Your task to perform on an android device: move a message to another label in the gmail app Image 0: 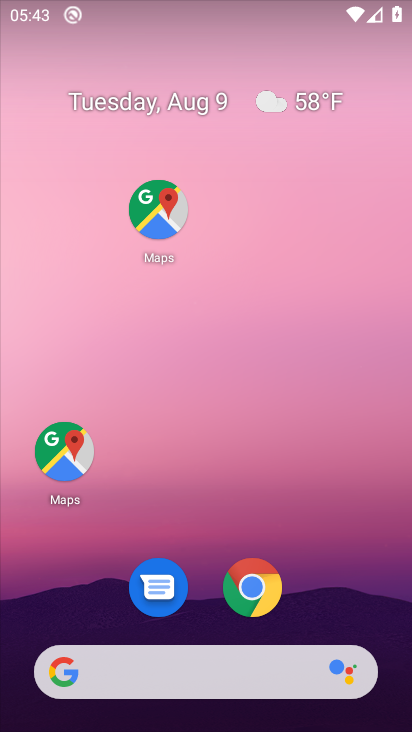
Step 0: drag from (288, 692) to (254, 235)
Your task to perform on an android device: move a message to another label in the gmail app Image 1: 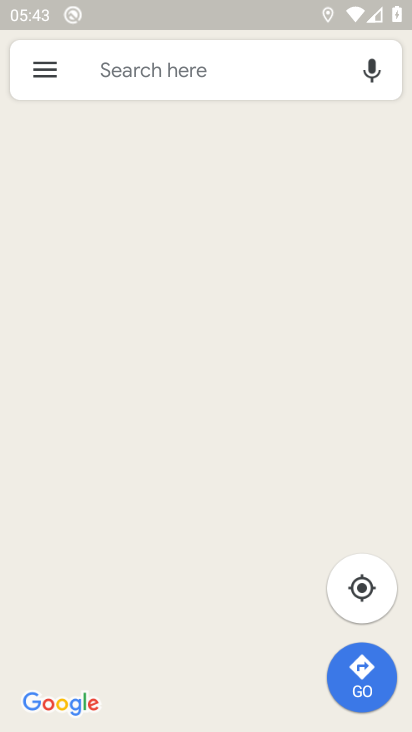
Step 1: press back button
Your task to perform on an android device: move a message to another label in the gmail app Image 2: 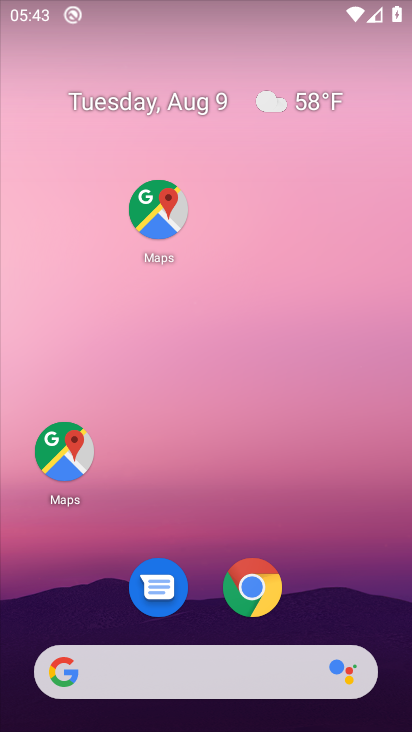
Step 2: drag from (163, 562) to (177, 150)
Your task to perform on an android device: move a message to another label in the gmail app Image 3: 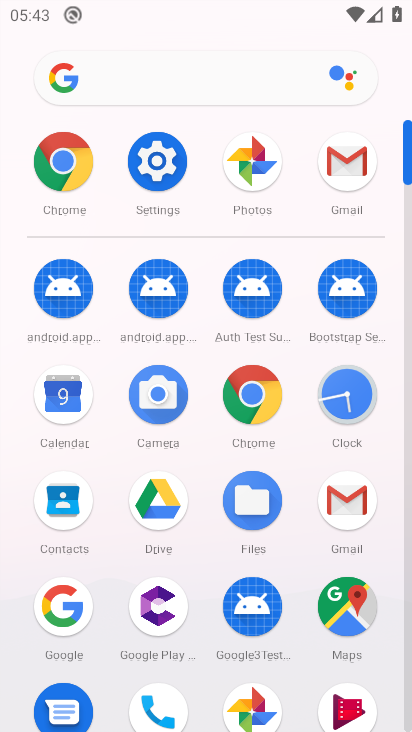
Step 3: click (358, 163)
Your task to perform on an android device: move a message to another label in the gmail app Image 4: 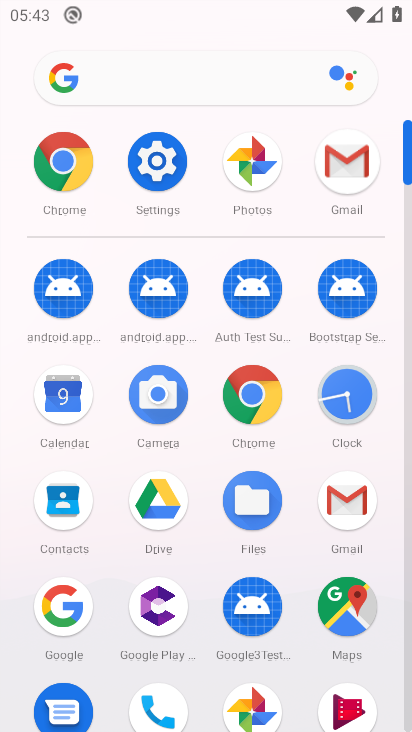
Step 4: click (347, 160)
Your task to perform on an android device: move a message to another label in the gmail app Image 5: 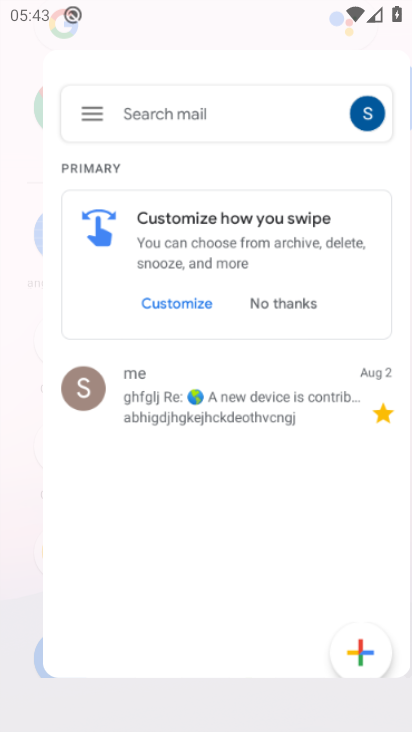
Step 5: click (347, 160)
Your task to perform on an android device: move a message to another label in the gmail app Image 6: 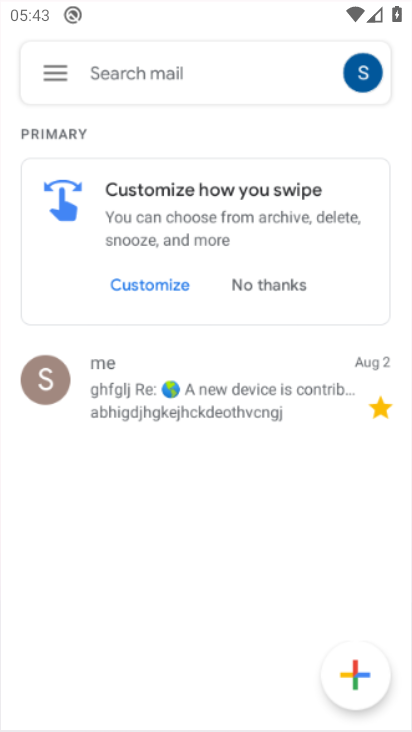
Step 6: click (343, 166)
Your task to perform on an android device: move a message to another label in the gmail app Image 7: 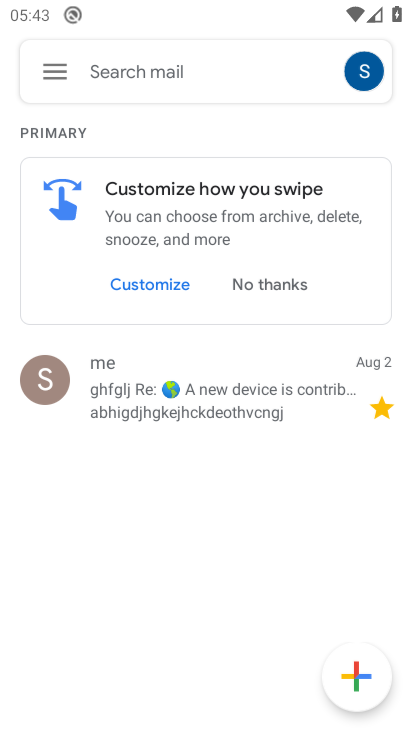
Step 7: click (341, 169)
Your task to perform on an android device: move a message to another label in the gmail app Image 8: 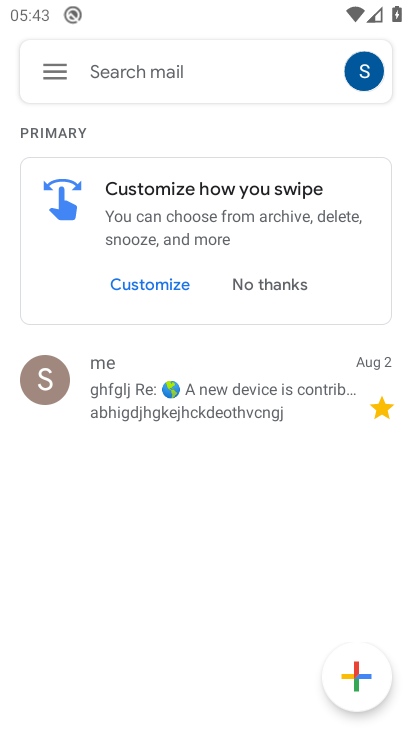
Step 8: click (339, 172)
Your task to perform on an android device: move a message to another label in the gmail app Image 9: 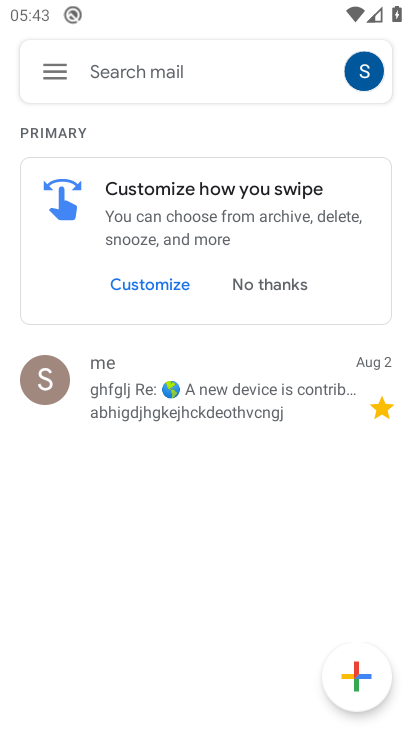
Step 9: click (253, 389)
Your task to perform on an android device: move a message to another label in the gmail app Image 10: 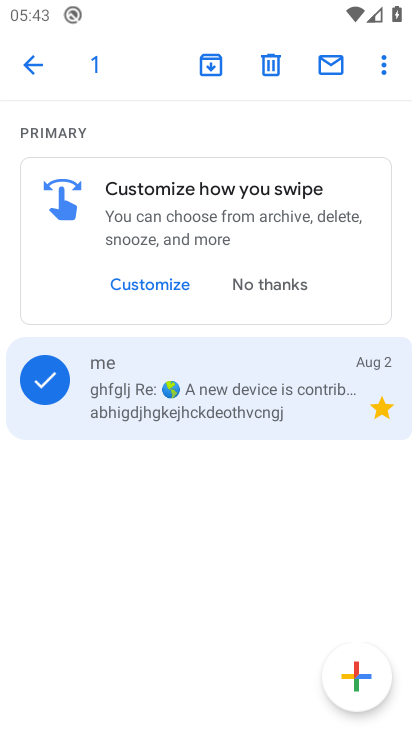
Step 10: click (368, 405)
Your task to perform on an android device: move a message to another label in the gmail app Image 11: 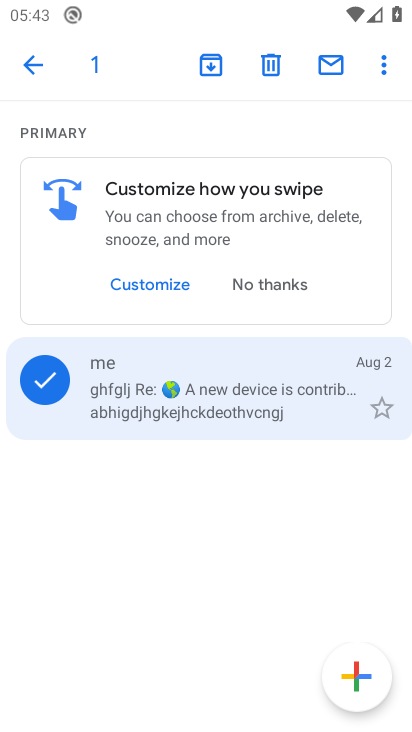
Step 11: task complete